Your task to perform on an android device: change the upload size in google photos Image 0: 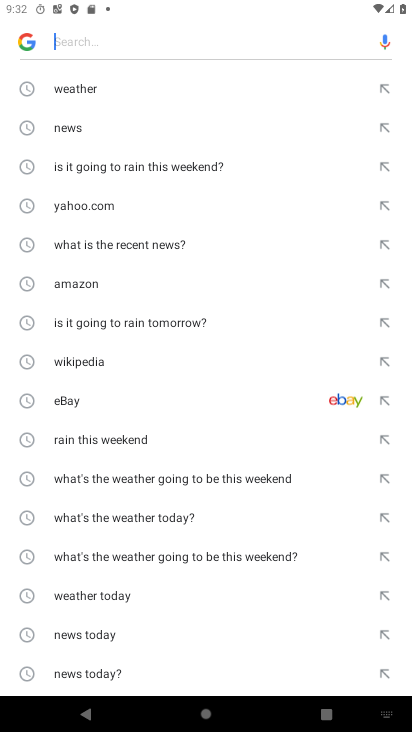
Step 0: press home button
Your task to perform on an android device: change the upload size in google photos Image 1: 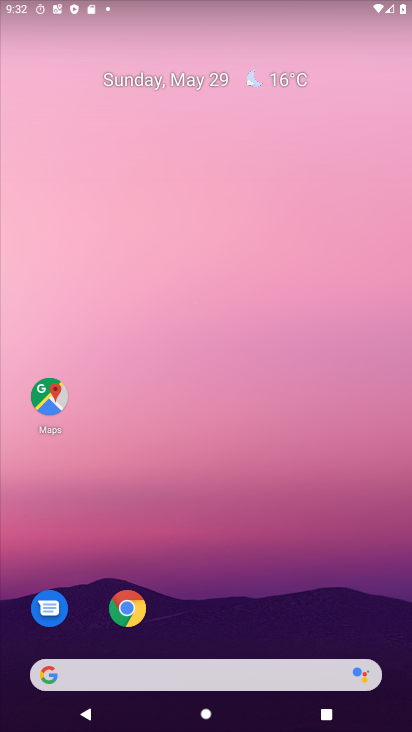
Step 1: drag from (197, 622) to (179, 0)
Your task to perform on an android device: change the upload size in google photos Image 2: 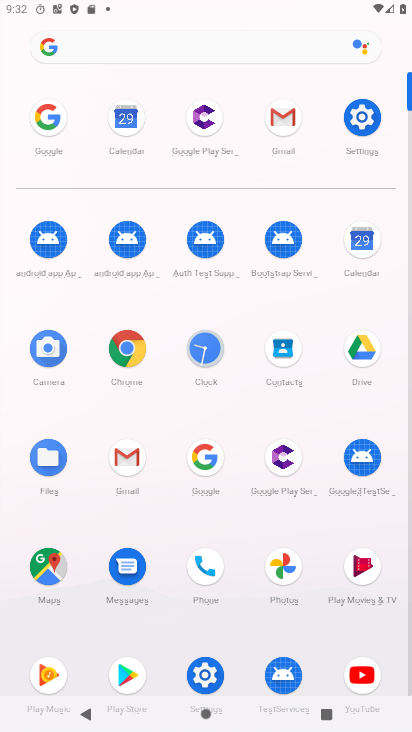
Step 2: click (270, 591)
Your task to perform on an android device: change the upload size in google photos Image 3: 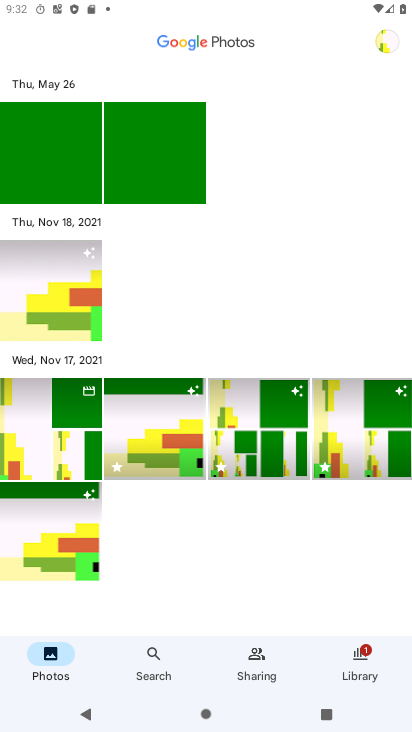
Step 3: press back button
Your task to perform on an android device: change the upload size in google photos Image 4: 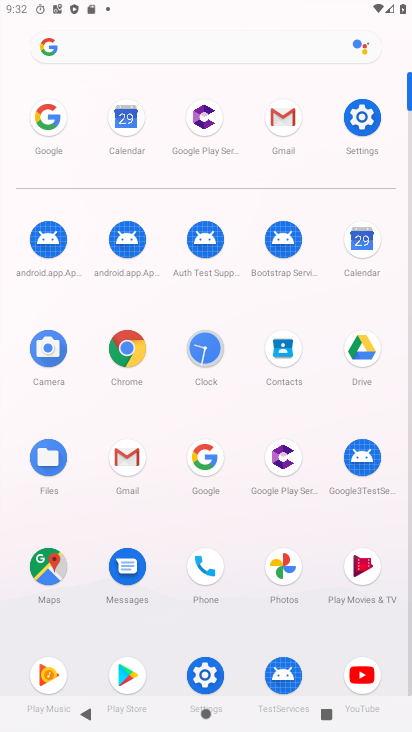
Step 4: click (279, 582)
Your task to perform on an android device: change the upload size in google photos Image 5: 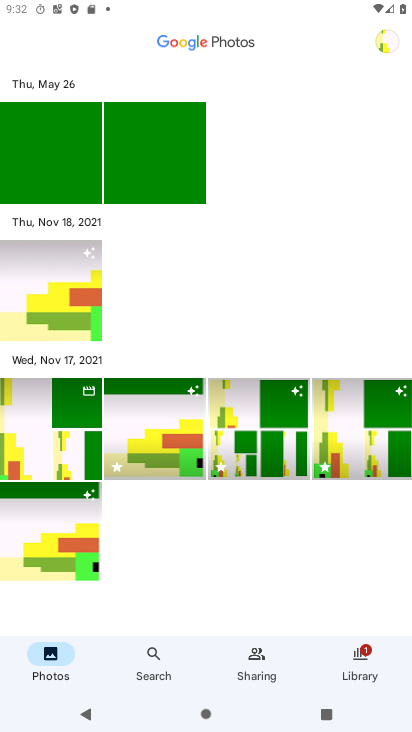
Step 5: click (385, 48)
Your task to perform on an android device: change the upload size in google photos Image 6: 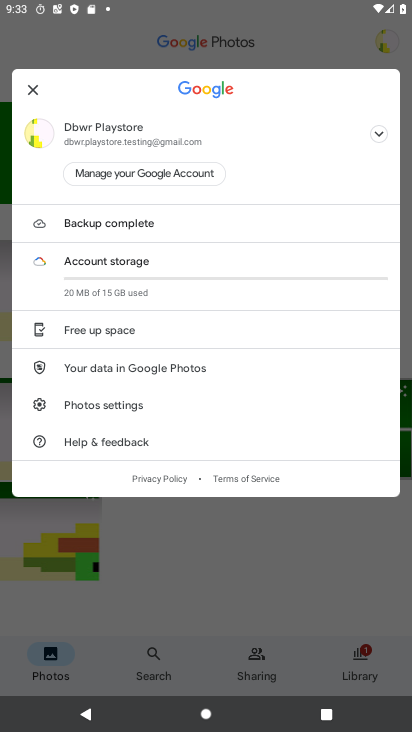
Step 6: click (116, 412)
Your task to perform on an android device: change the upload size in google photos Image 7: 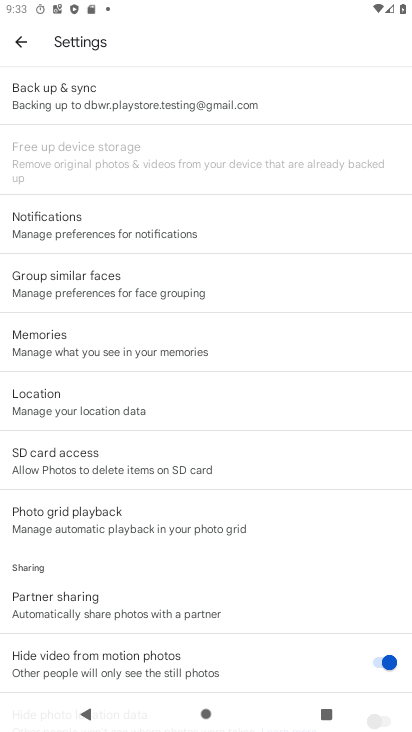
Step 7: click (43, 98)
Your task to perform on an android device: change the upload size in google photos Image 8: 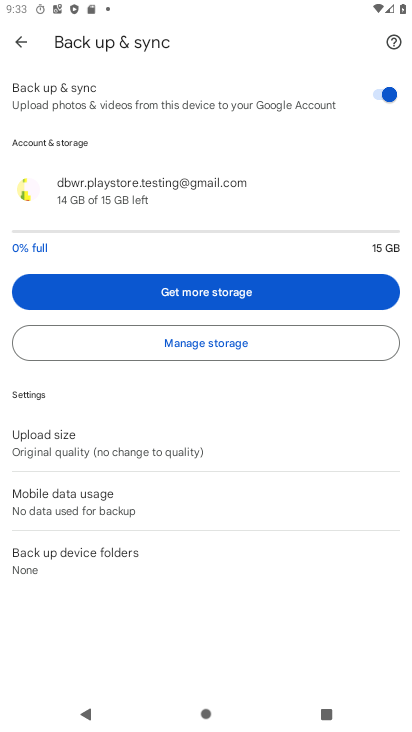
Step 8: click (122, 451)
Your task to perform on an android device: change the upload size in google photos Image 9: 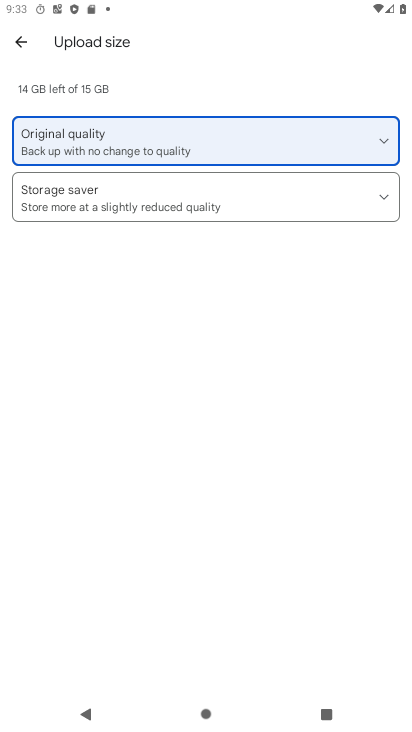
Step 9: click (136, 192)
Your task to perform on an android device: change the upload size in google photos Image 10: 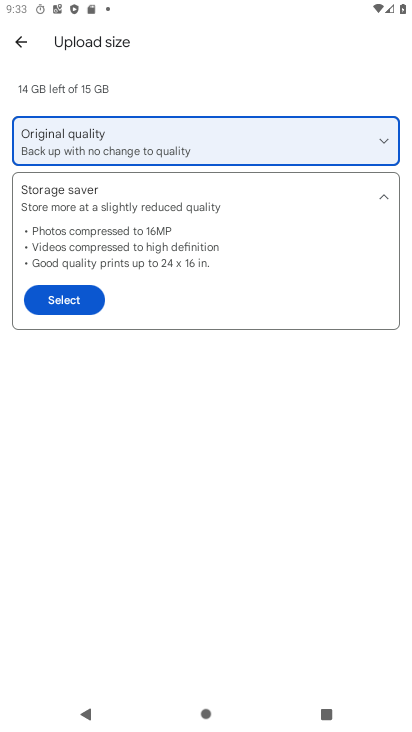
Step 10: click (73, 302)
Your task to perform on an android device: change the upload size in google photos Image 11: 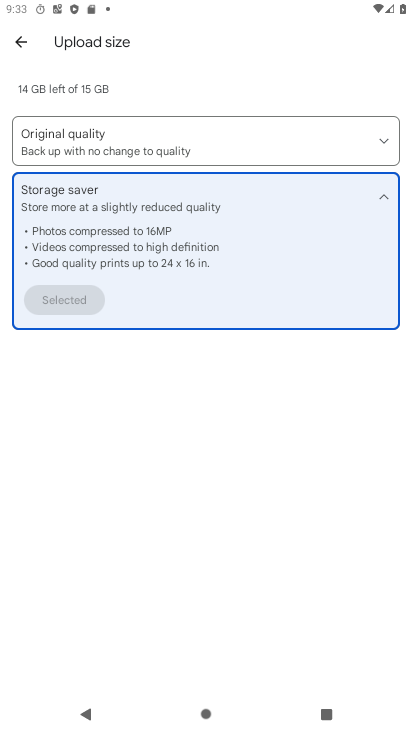
Step 11: task complete